Your task to perform on an android device: Go to Wikipedia Image 0: 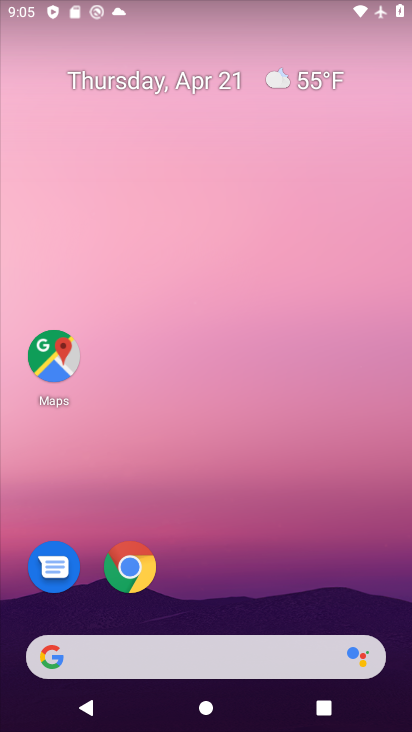
Step 0: click (129, 563)
Your task to perform on an android device: Go to Wikipedia Image 1: 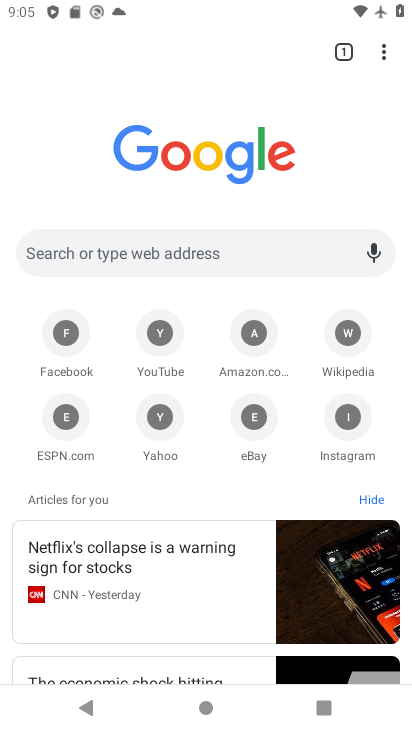
Step 1: click (348, 334)
Your task to perform on an android device: Go to Wikipedia Image 2: 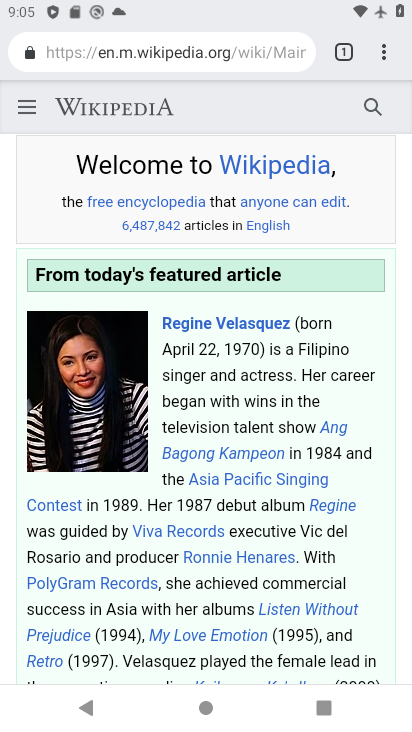
Step 2: task complete